Your task to perform on an android device: Find coffee shops on Maps Image 0: 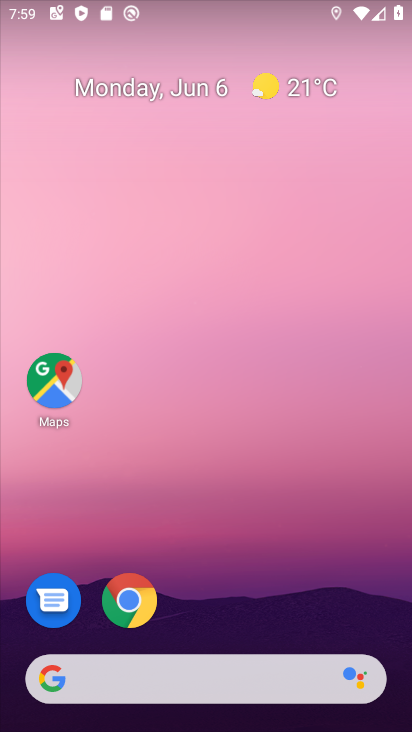
Step 0: click (53, 377)
Your task to perform on an android device: Find coffee shops on Maps Image 1: 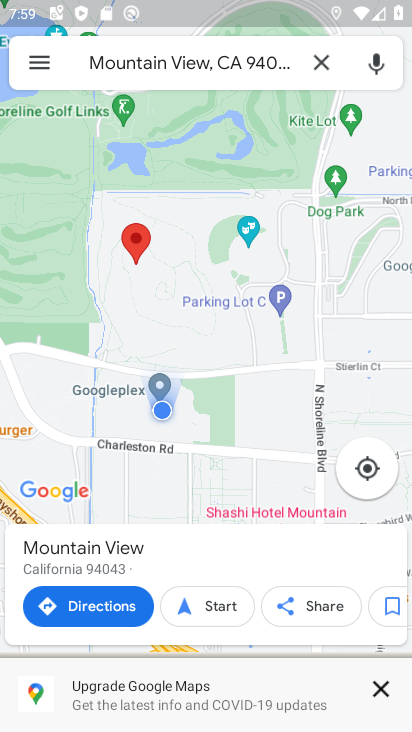
Step 1: click (315, 56)
Your task to perform on an android device: Find coffee shops on Maps Image 2: 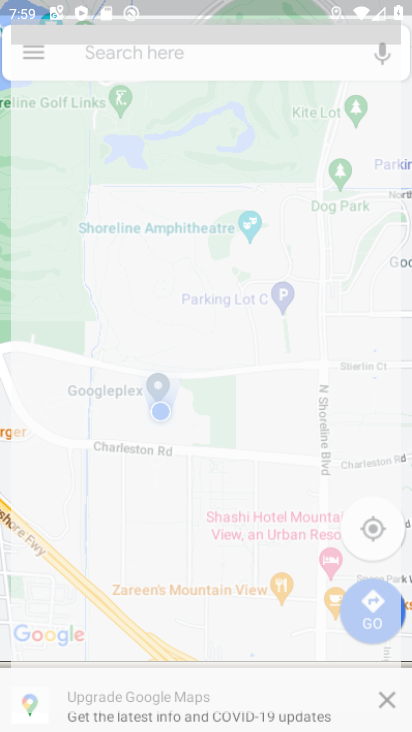
Step 2: click (175, 62)
Your task to perform on an android device: Find coffee shops on Maps Image 3: 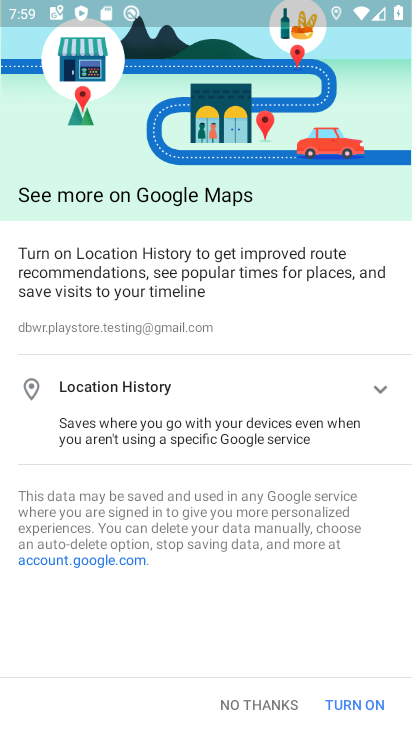
Step 3: click (259, 707)
Your task to perform on an android device: Find coffee shops on Maps Image 4: 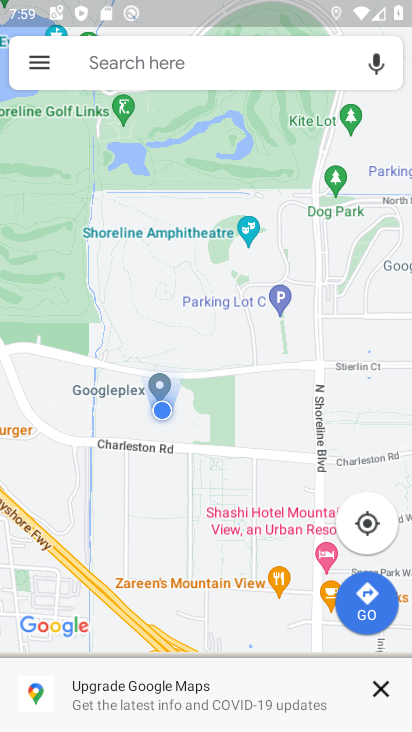
Step 4: click (185, 56)
Your task to perform on an android device: Find coffee shops on Maps Image 5: 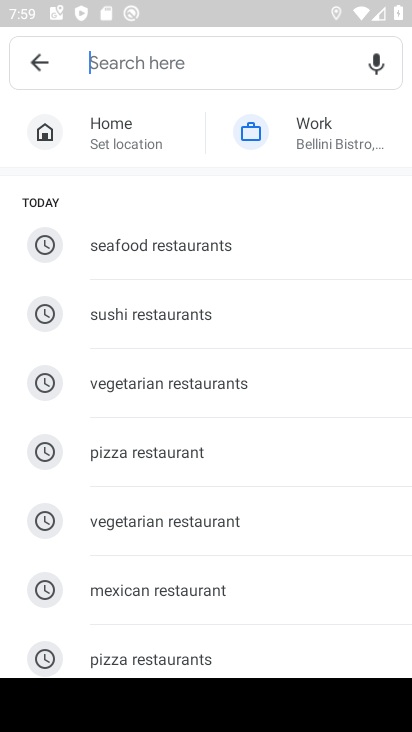
Step 5: type "coffee shop"
Your task to perform on an android device: Find coffee shops on Maps Image 6: 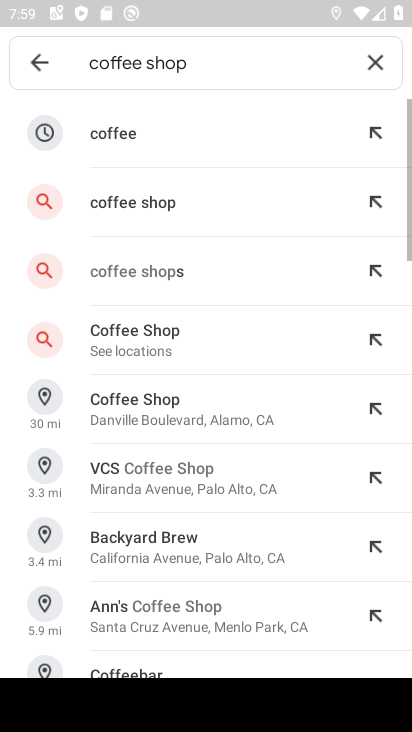
Step 6: click (143, 200)
Your task to perform on an android device: Find coffee shops on Maps Image 7: 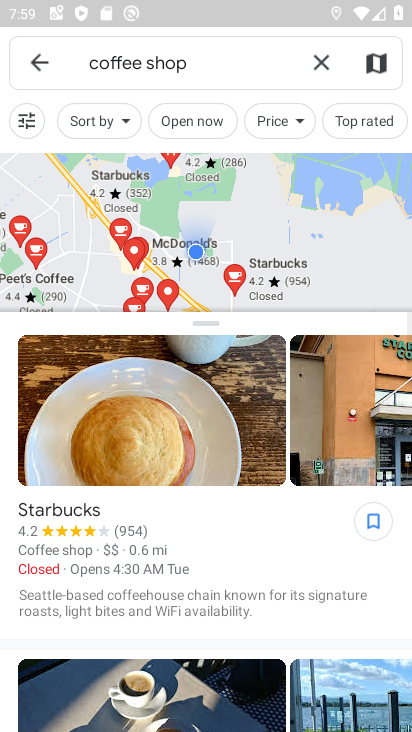
Step 7: task complete